Your task to perform on an android device: open app "YouTube Kids" (install if not already installed) Image 0: 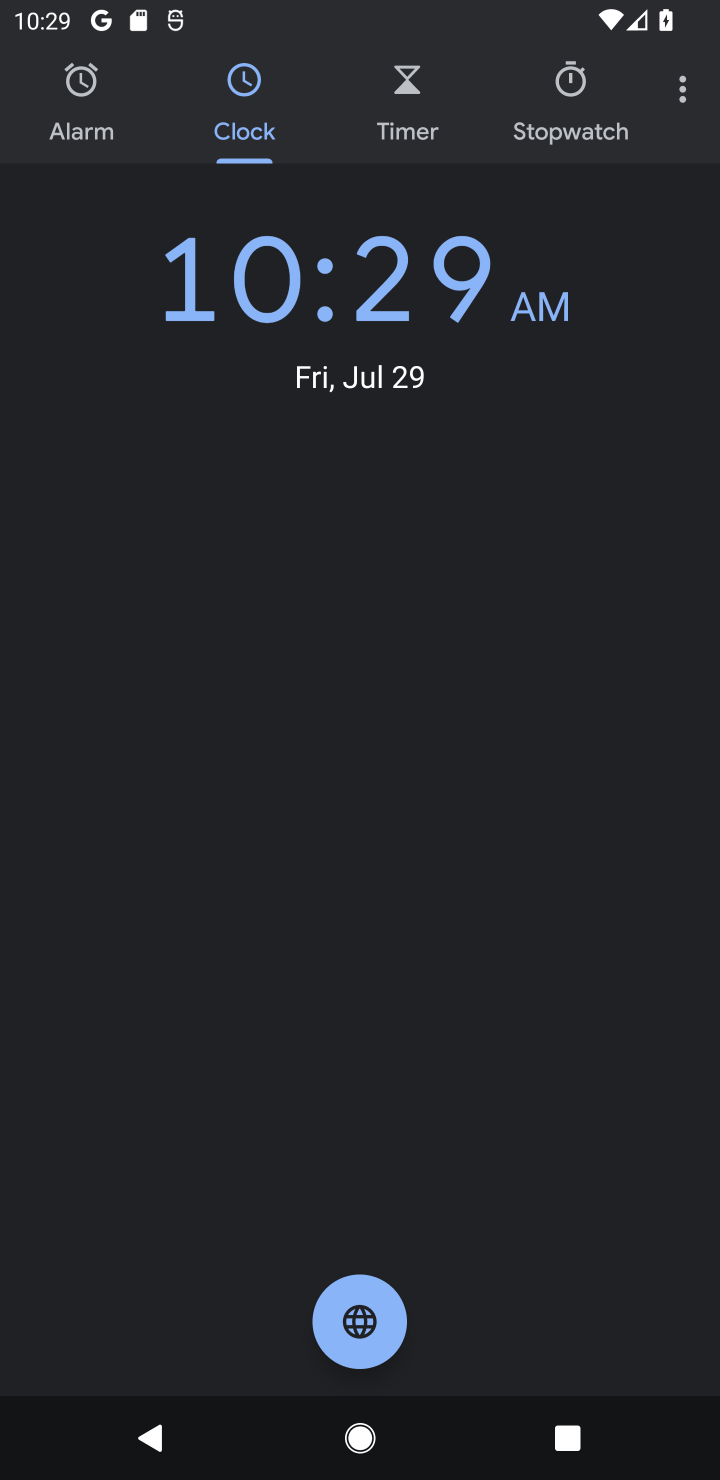
Step 0: press back button
Your task to perform on an android device: open app "YouTube Kids" (install if not already installed) Image 1: 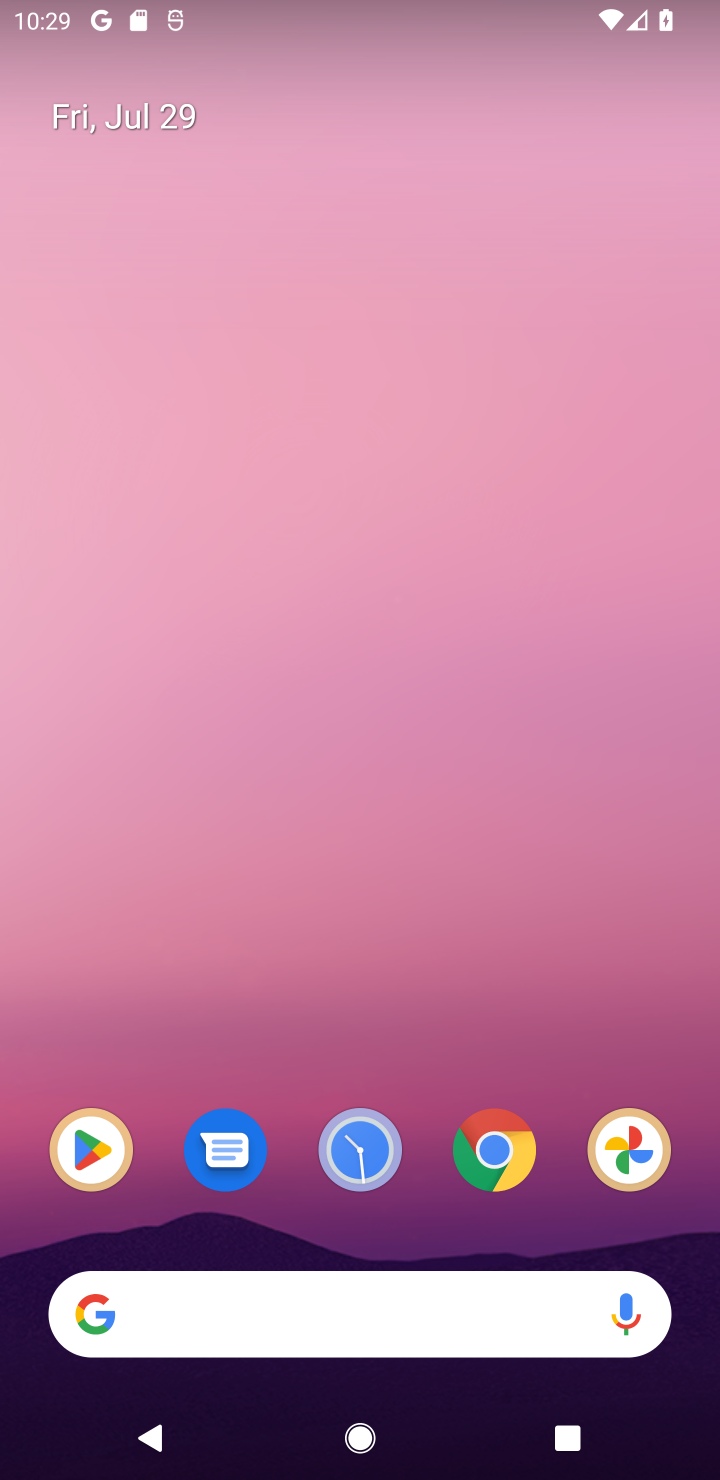
Step 1: drag from (313, 1106) to (533, 128)
Your task to perform on an android device: open app "YouTube Kids" (install if not already installed) Image 2: 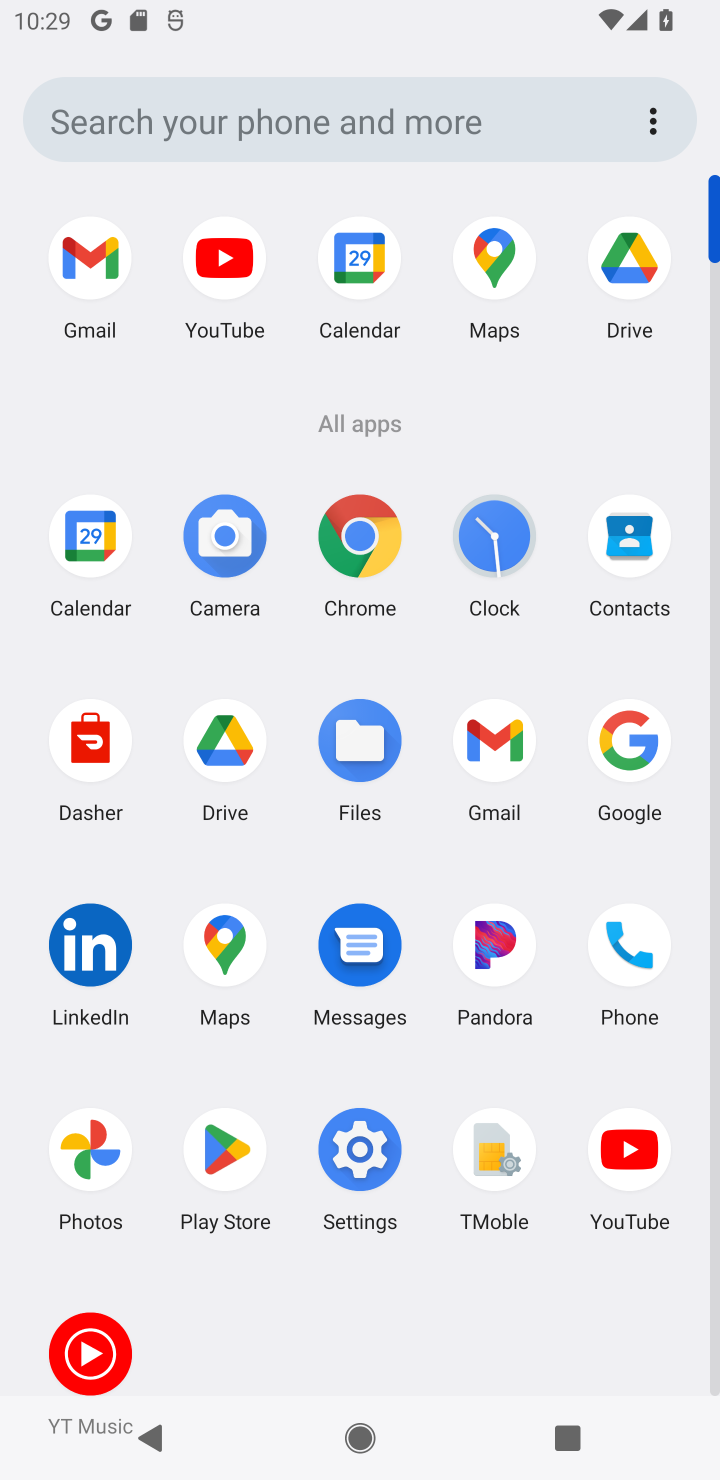
Step 2: click (243, 1130)
Your task to perform on an android device: open app "YouTube Kids" (install if not already installed) Image 3: 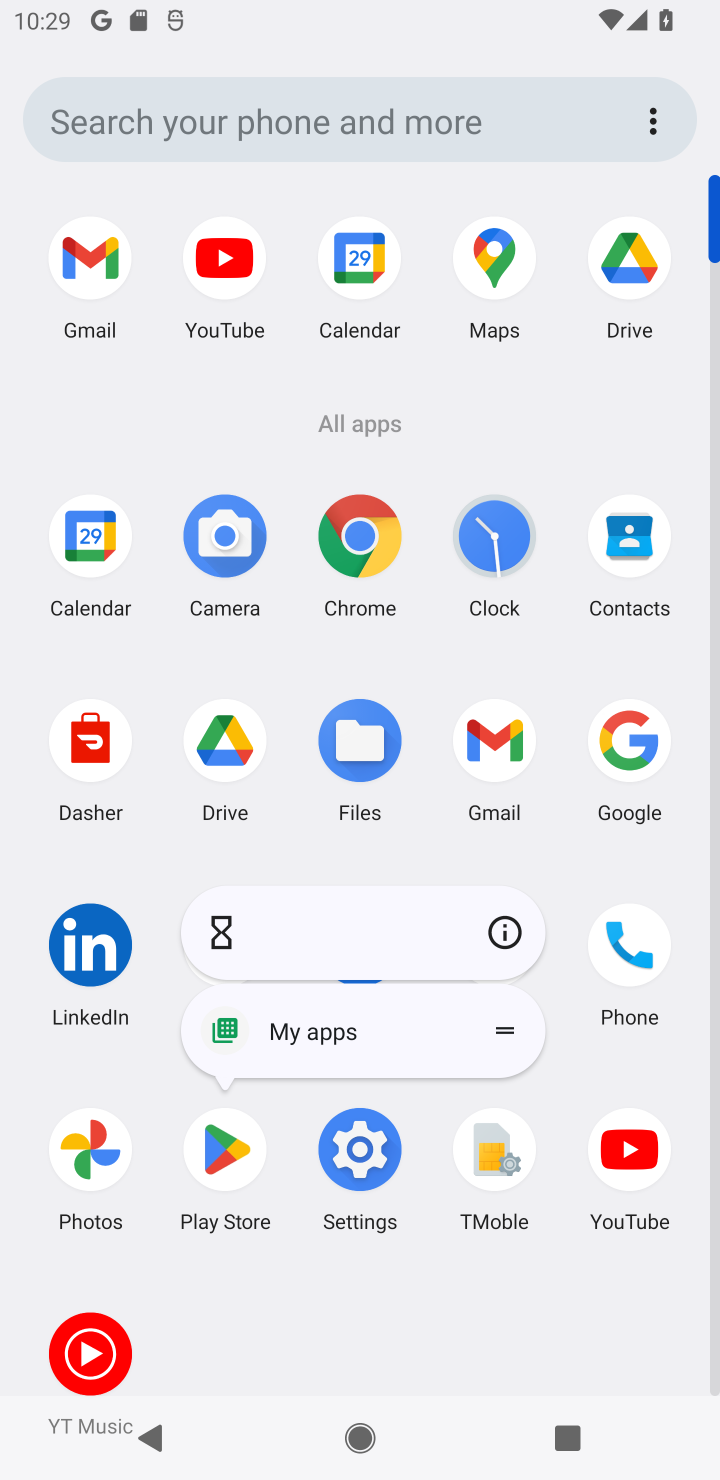
Step 3: click (100, 1337)
Your task to perform on an android device: open app "YouTube Kids" (install if not already installed) Image 4: 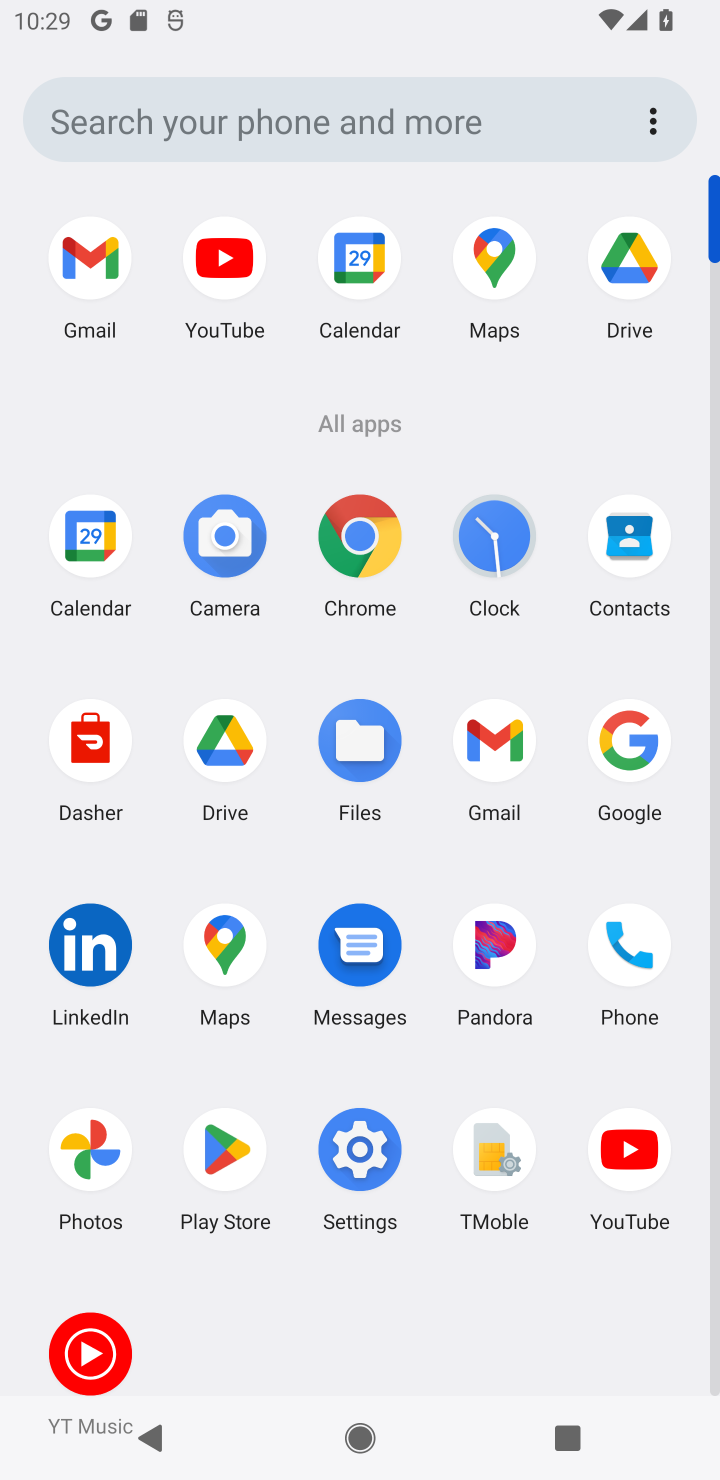
Step 4: click (247, 1156)
Your task to perform on an android device: open app "YouTube Kids" (install if not already installed) Image 5: 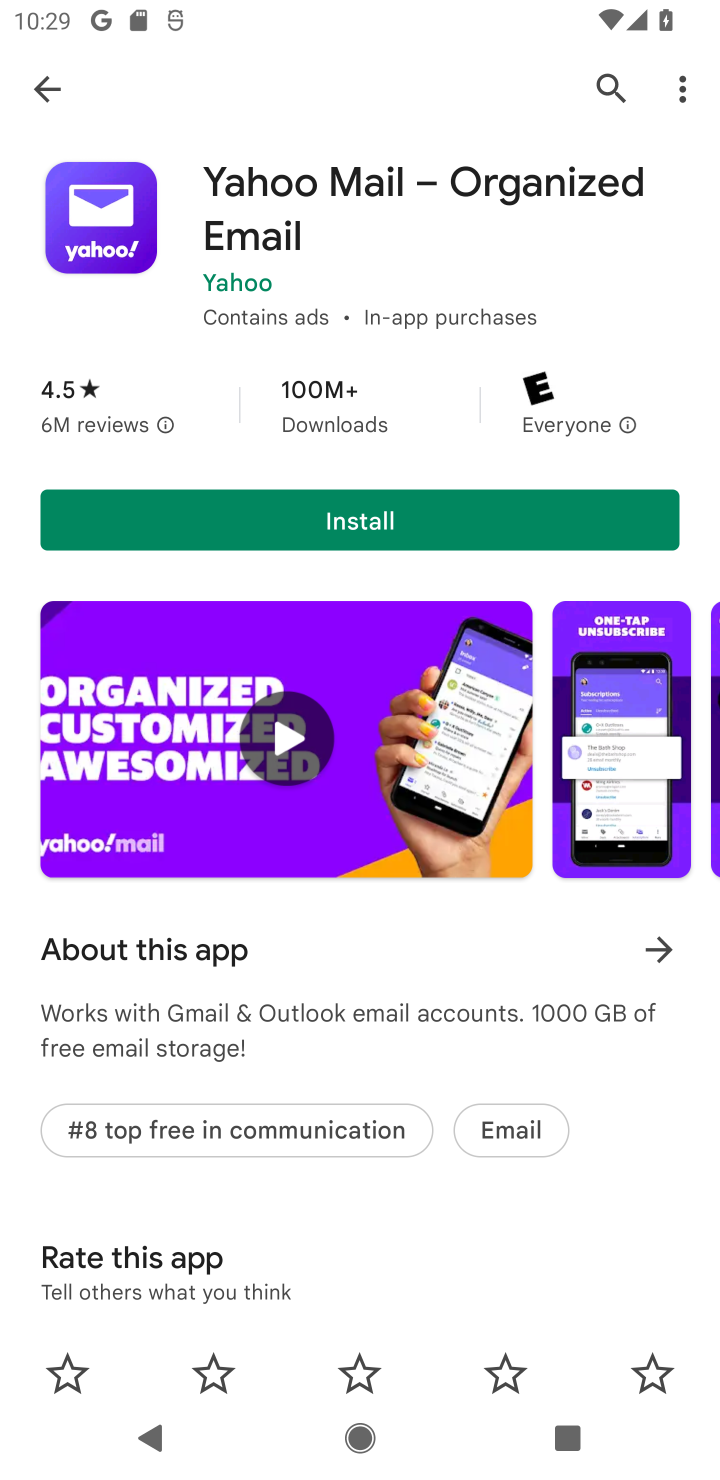
Step 5: click (606, 83)
Your task to perform on an android device: open app "YouTube Kids" (install if not already installed) Image 6: 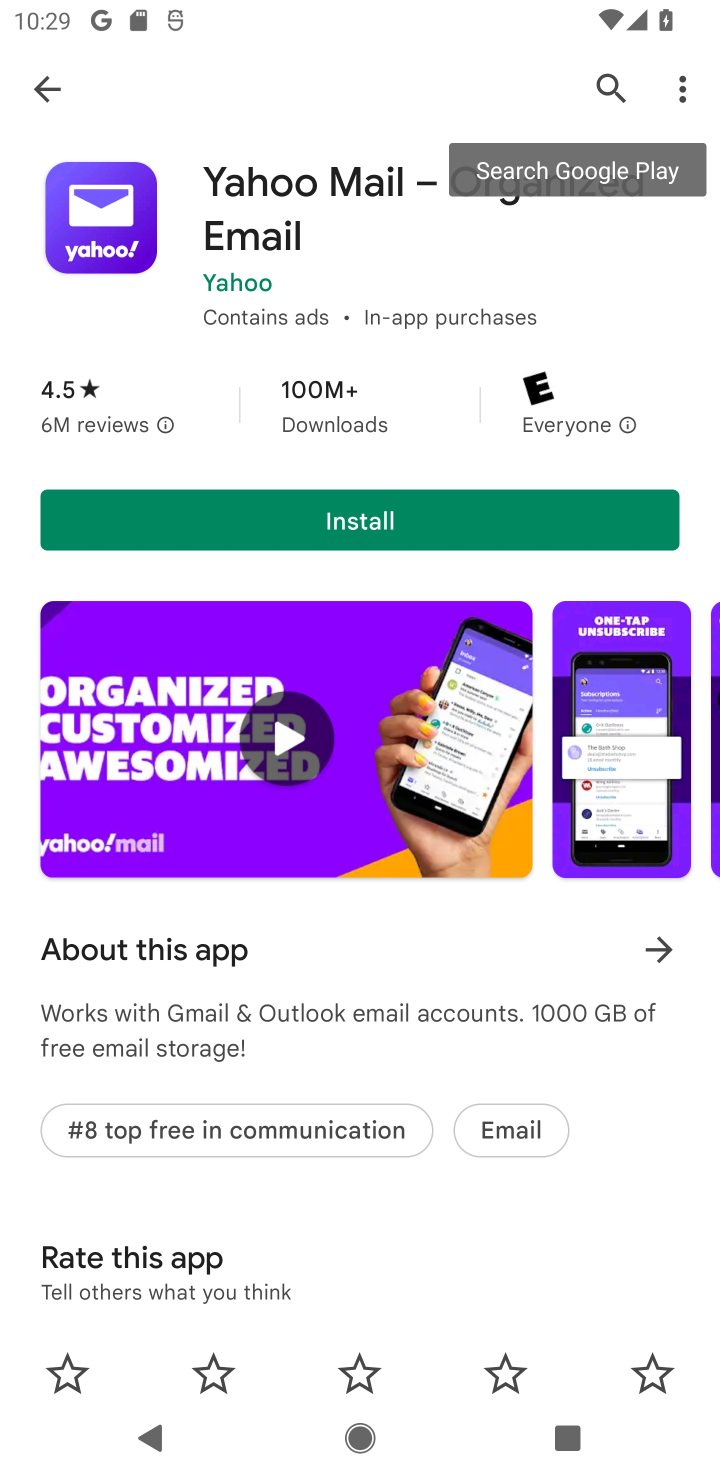
Step 6: click (609, 89)
Your task to perform on an android device: open app "YouTube Kids" (install if not already installed) Image 7: 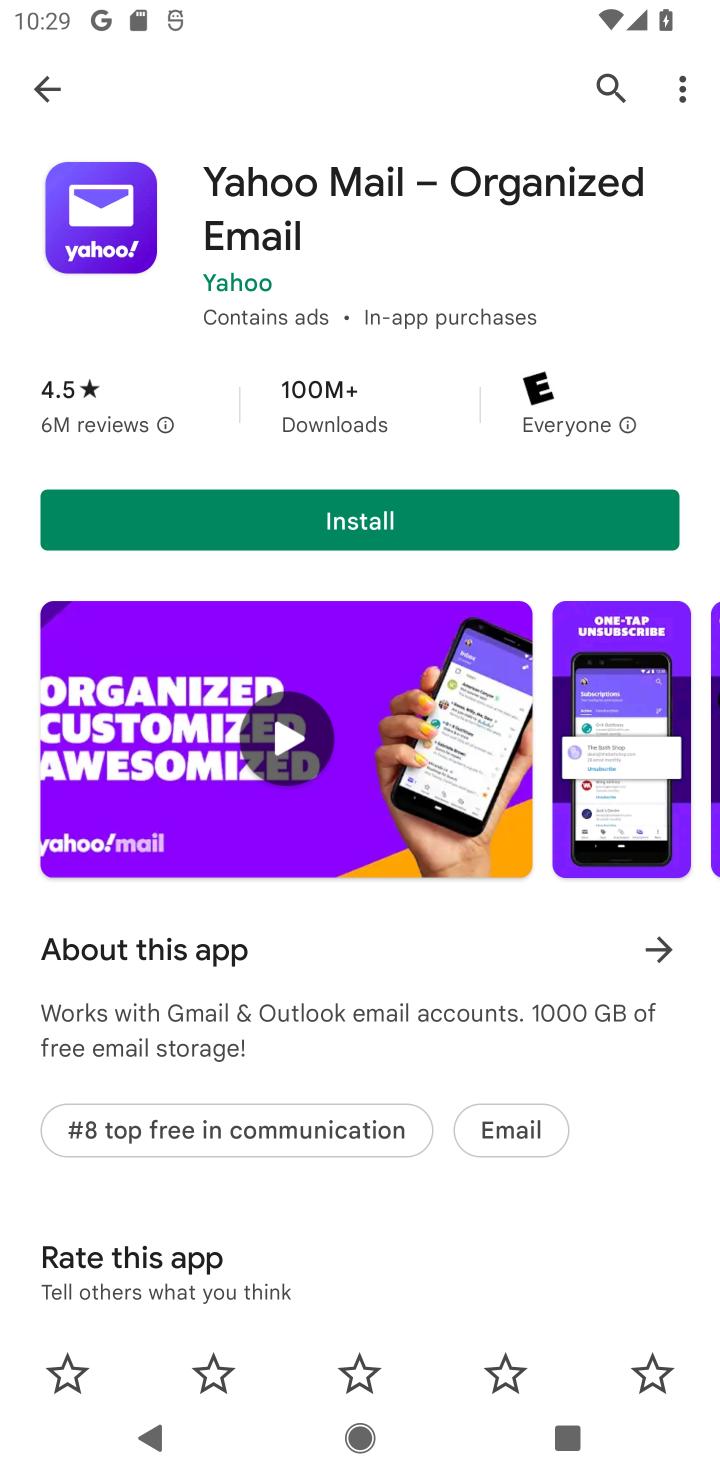
Step 7: click (609, 80)
Your task to perform on an android device: open app "YouTube Kids" (install if not already installed) Image 8: 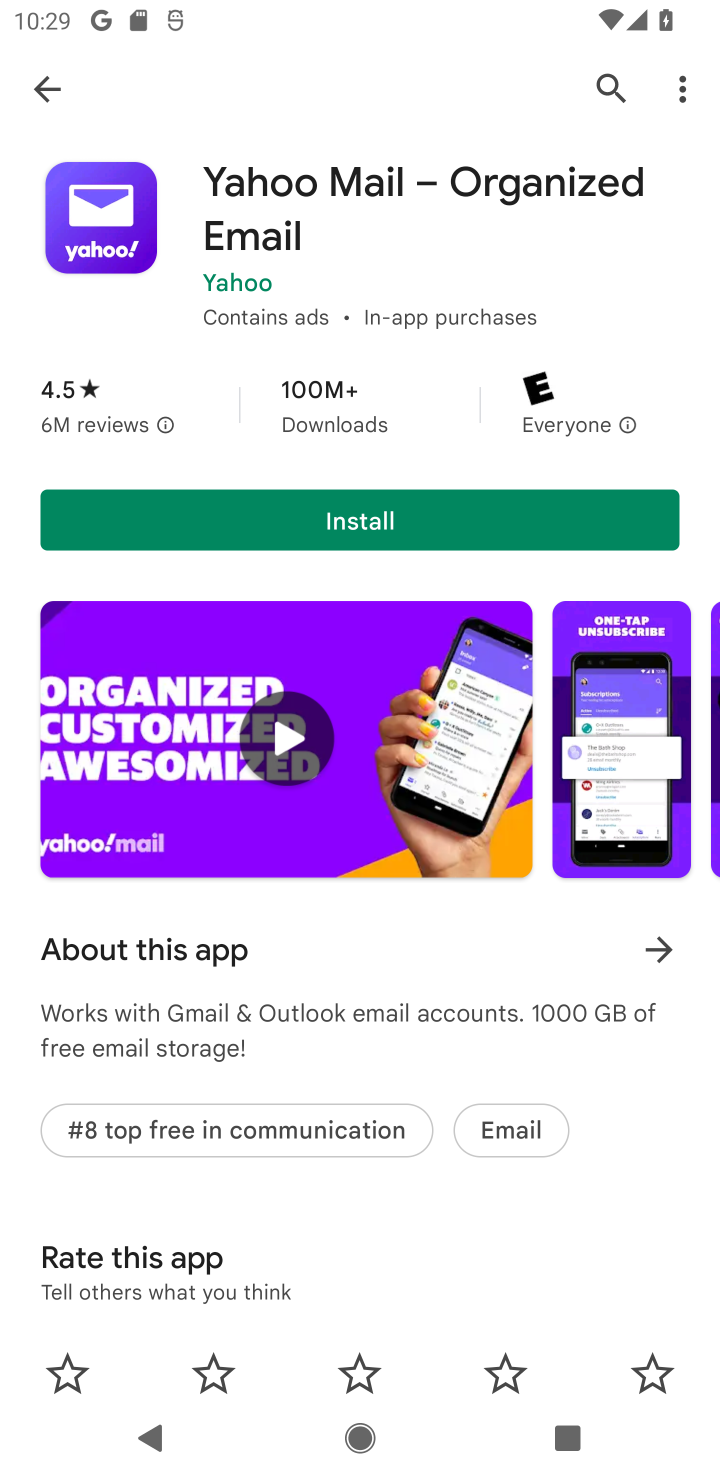
Step 8: click (57, 68)
Your task to perform on an android device: open app "YouTube Kids" (install if not already installed) Image 9: 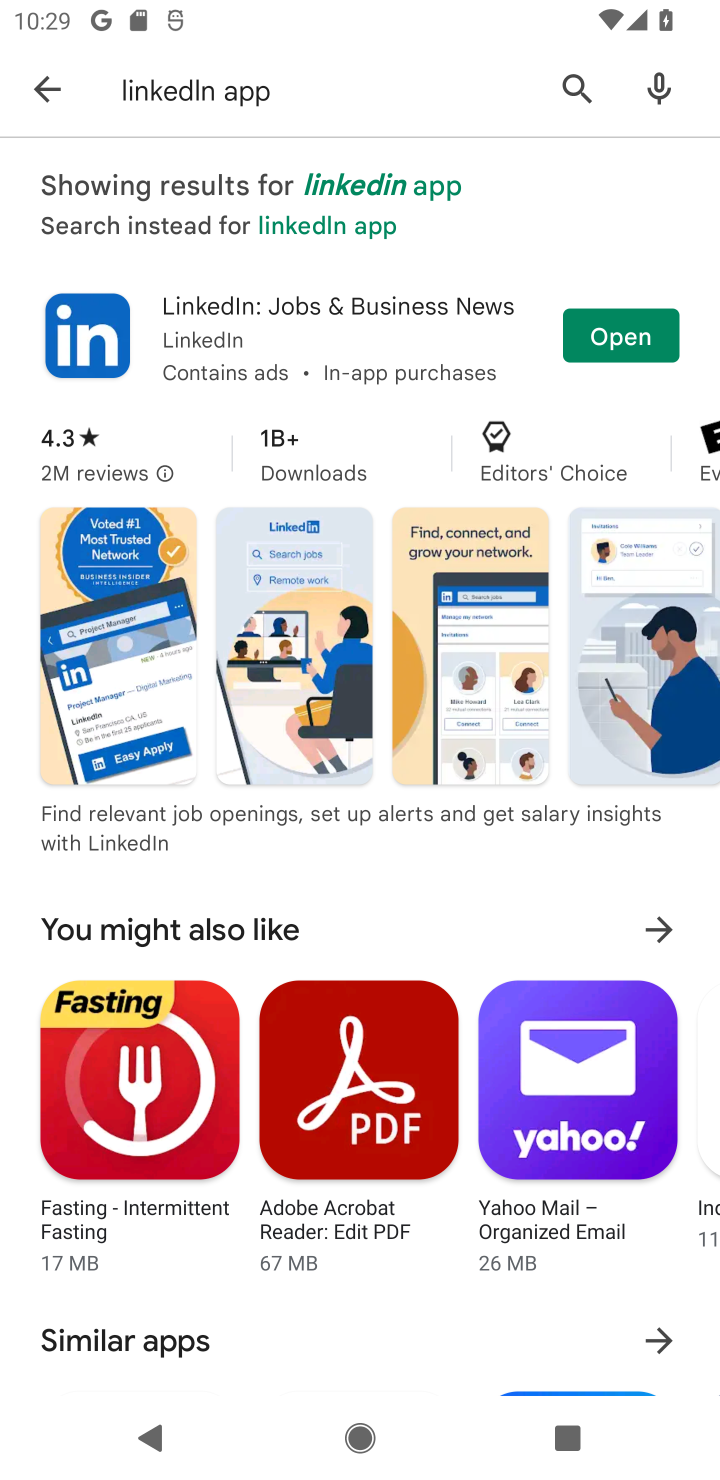
Step 9: click (593, 77)
Your task to perform on an android device: open app "YouTube Kids" (install if not already installed) Image 10: 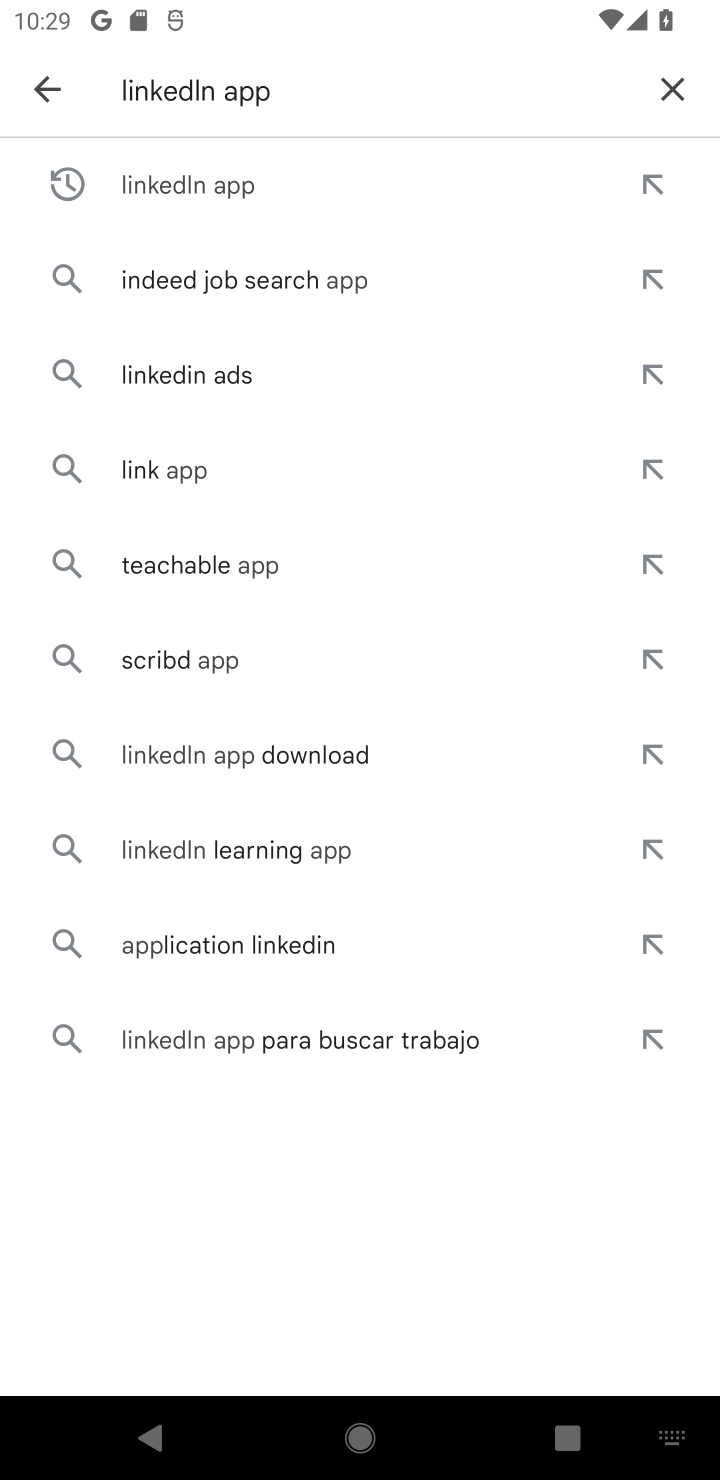
Step 10: click (685, 82)
Your task to perform on an android device: open app "YouTube Kids" (install if not already installed) Image 11: 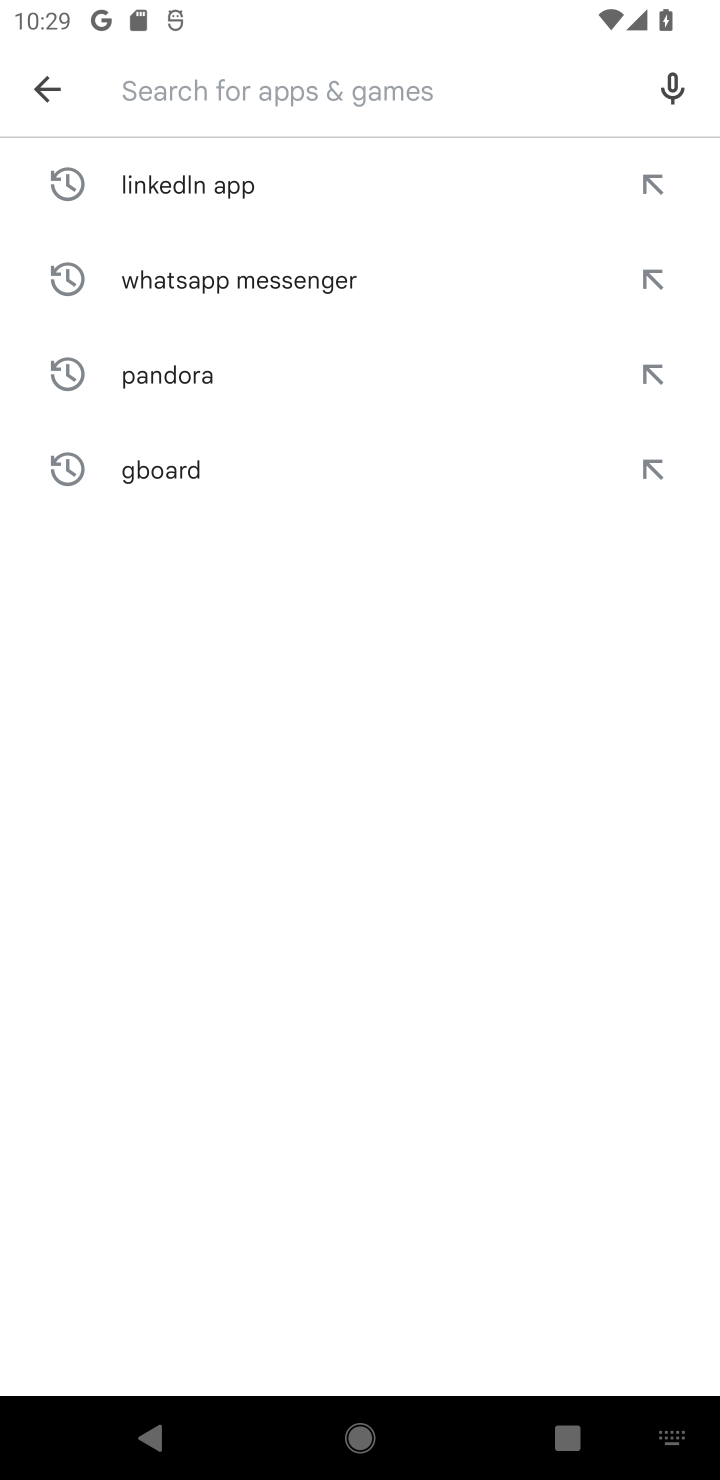
Step 11: click (274, 84)
Your task to perform on an android device: open app "YouTube Kids" (install if not already installed) Image 12: 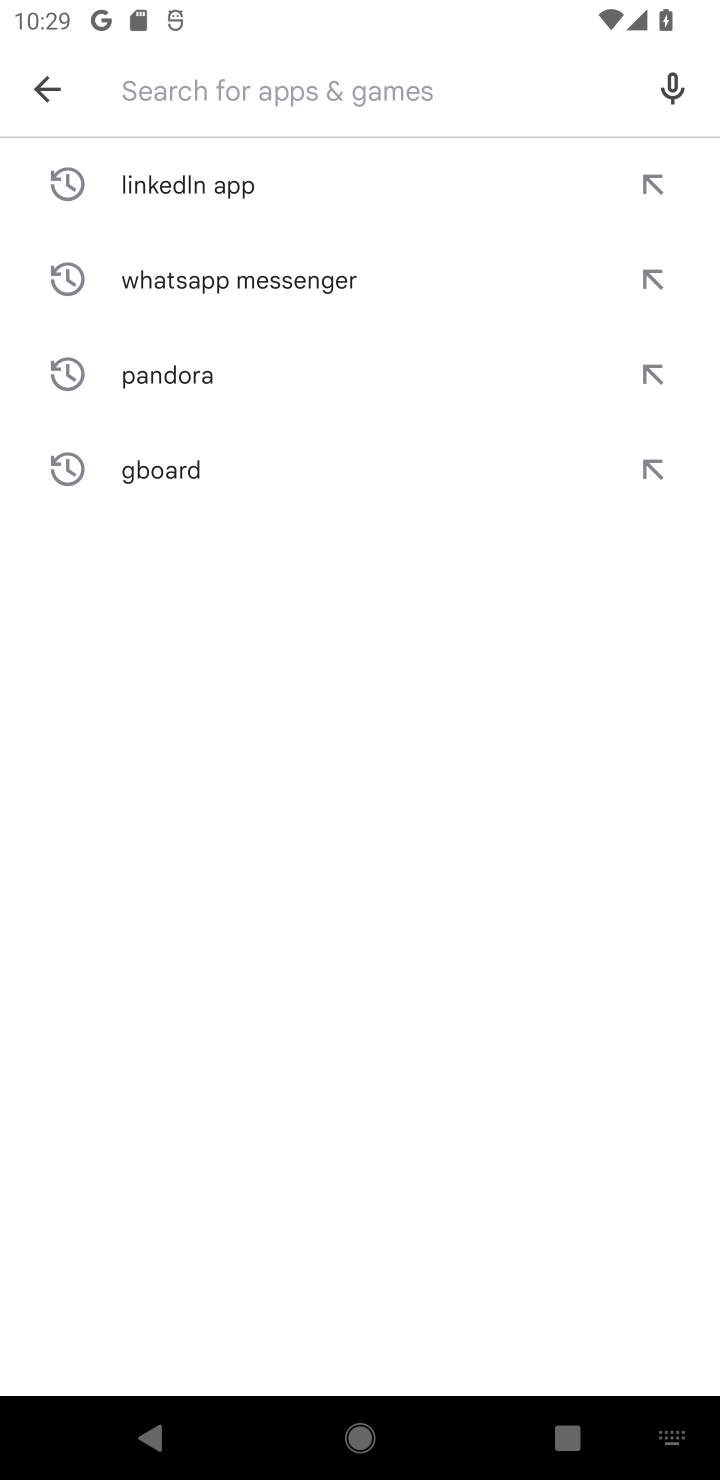
Step 12: type "youtube kids"
Your task to perform on an android device: open app "YouTube Kids" (install if not already installed) Image 13: 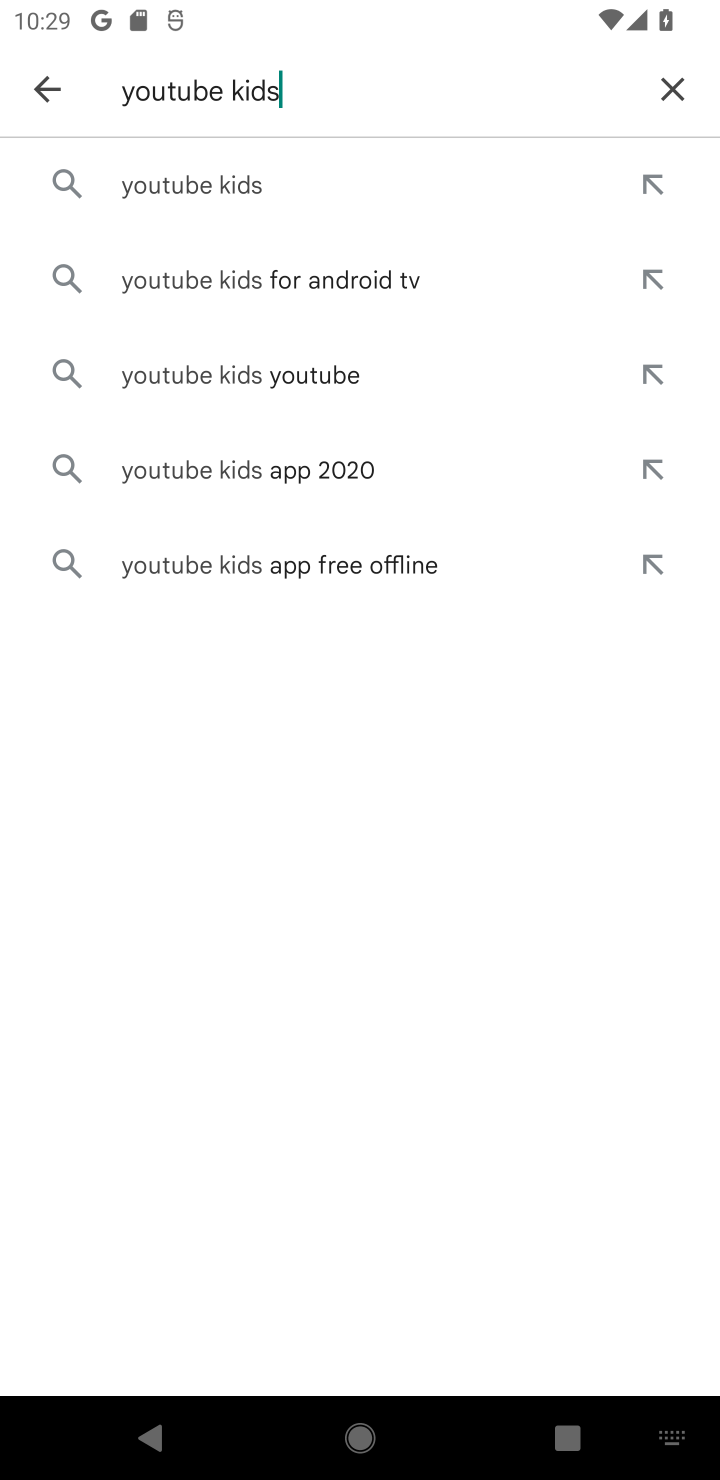
Step 13: click (230, 187)
Your task to perform on an android device: open app "YouTube Kids" (install if not already installed) Image 14: 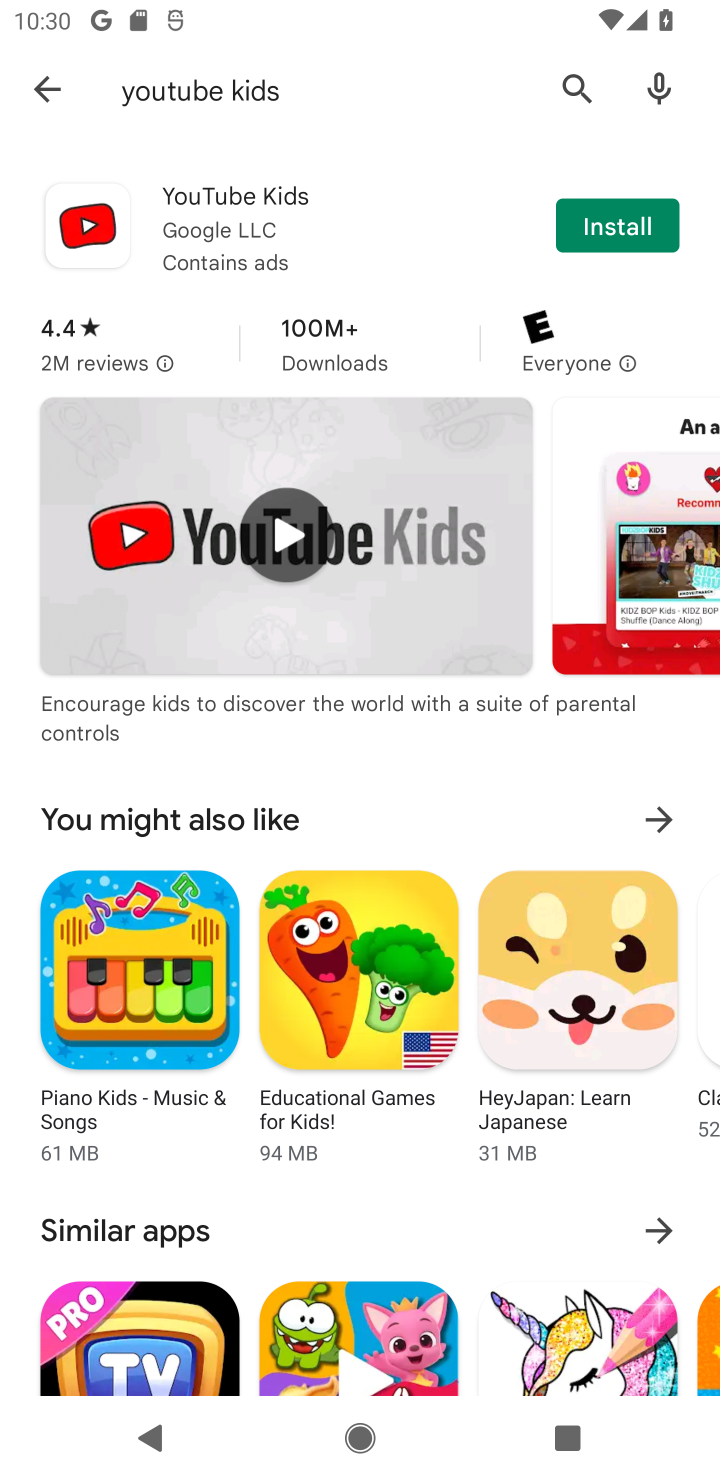
Step 14: click (619, 233)
Your task to perform on an android device: open app "YouTube Kids" (install if not already installed) Image 15: 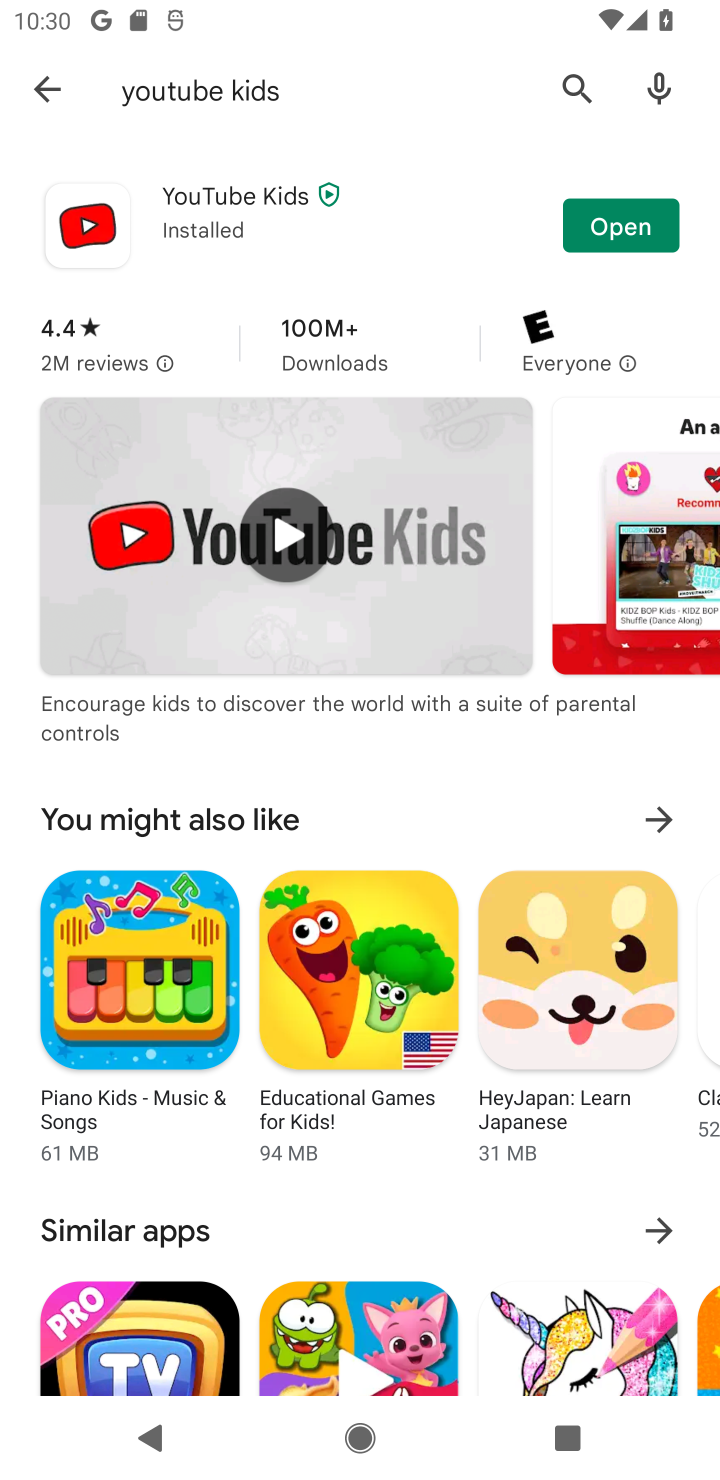
Step 15: click (618, 235)
Your task to perform on an android device: open app "YouTube Kids" (install if not already installed) Image 16: 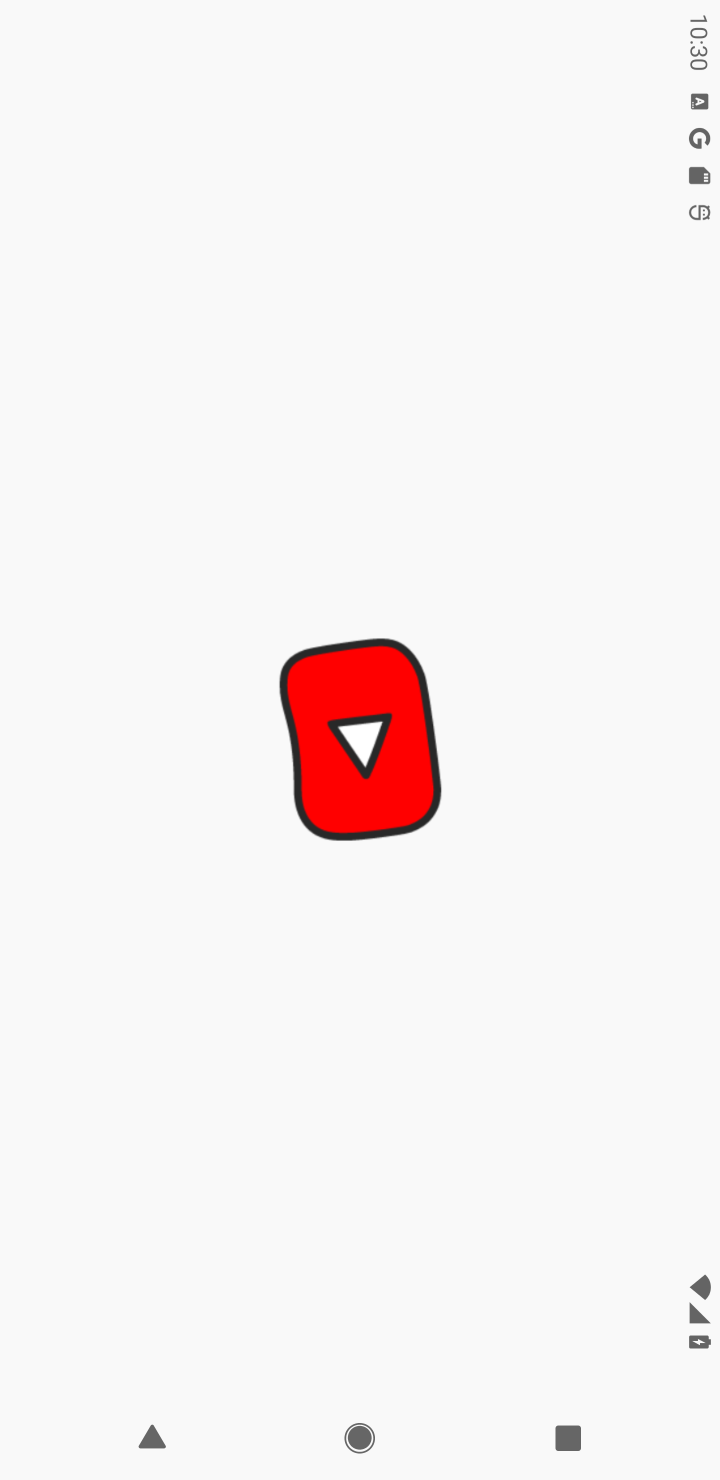
Step 16: task complete